Your task to perform on an android device: Do I have any events this weekend? Image 0: 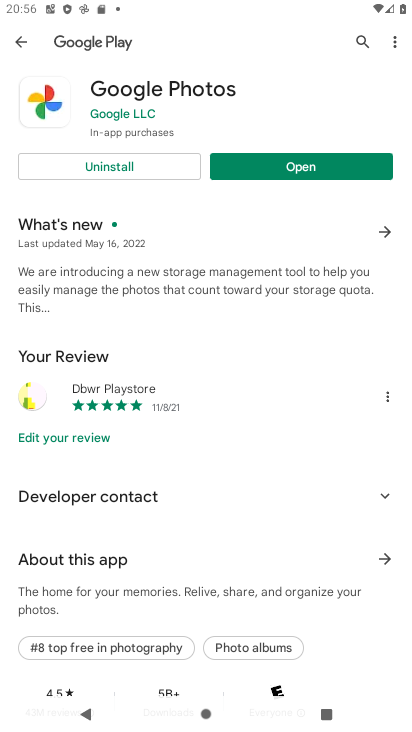
Step 0: press home button
Your task to perform on an android device: Do I have any events this weekend? Image 1: 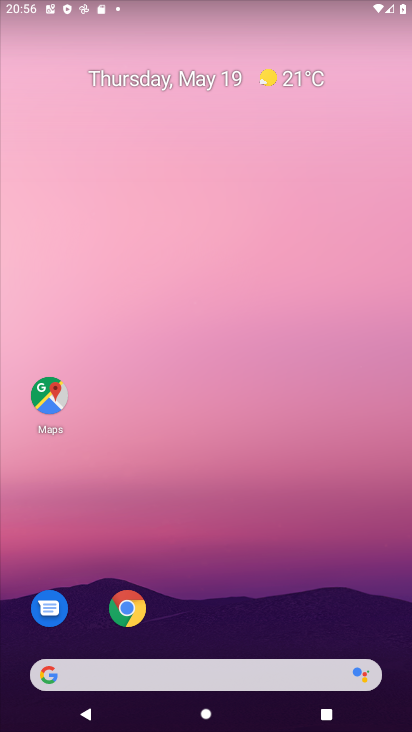
Step 1: drag from (309, 564) to (239, 50)
Your task to perform on an android device: Do I have any events this weekend? Image 2: 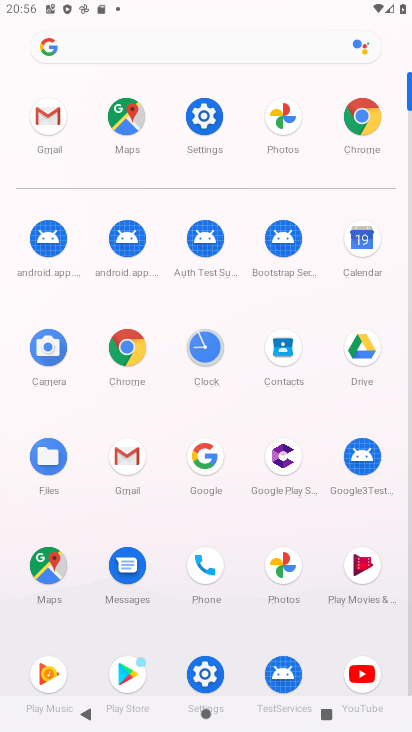
Step 2: click (359, 239)
Your task to perform on an android device: Do I have any events this weekend? Image 3: 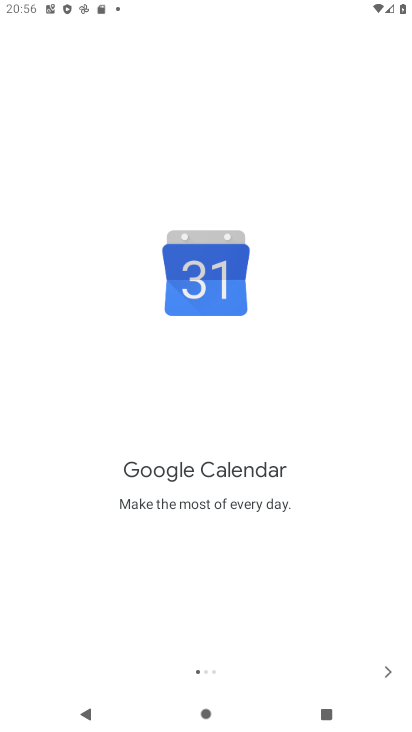
Step 3: click (386, 669)
Your task to perform on an android device: Do I have any events this weekend? Image 4: 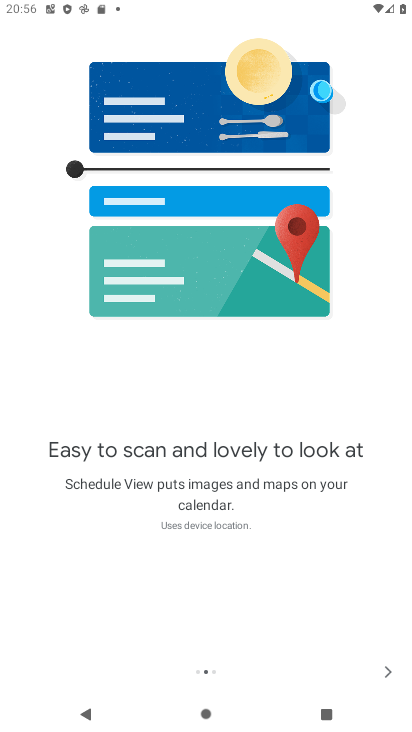
Step 4: click (386, 669)
Your task to perform on an android device: Do I have any events this weekend? Image 5: 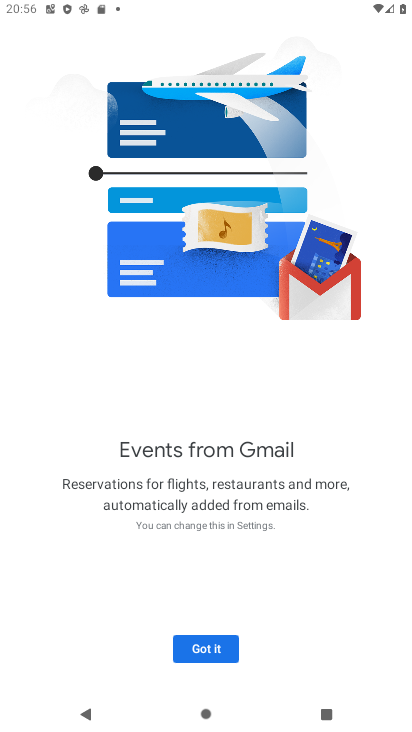
Step 5: click (212, 648)
Your task to perform on an android device: Do I have any events this weekend? Image 6: 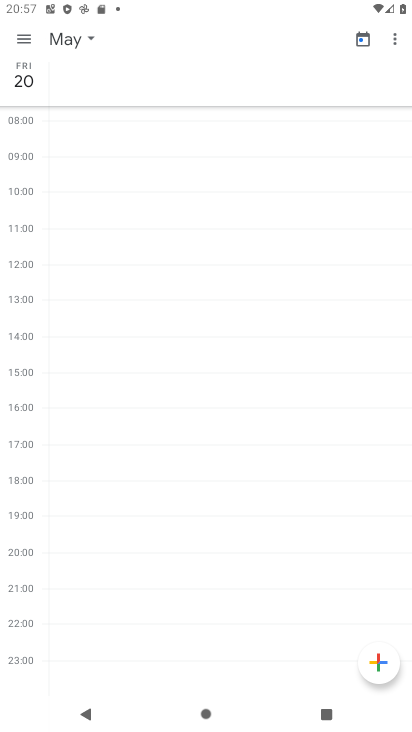
Step 6: click (86, 39)
Your task to perform on an android device: Do I have any events this weekend? Image 7: 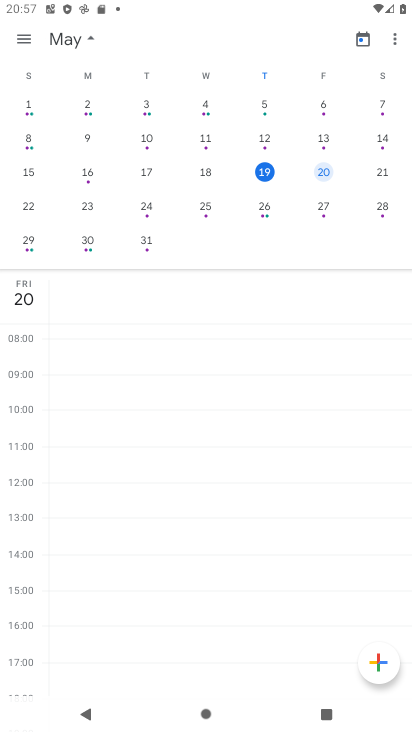
Step 7: click (384, 171)
Your task to perform on an android device: Do I have any events this weekend? Image 8: 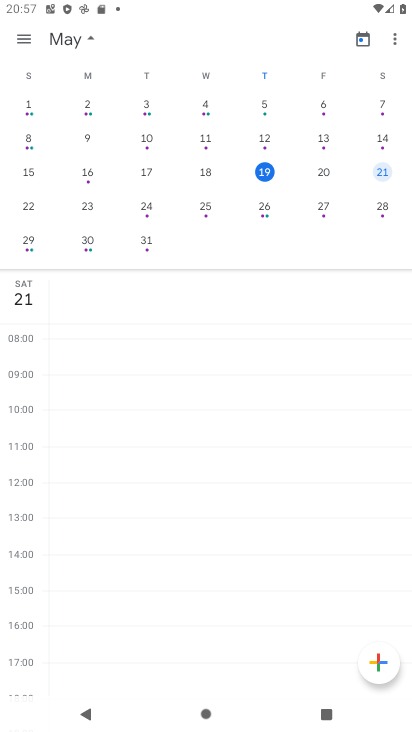
Step 8: task complete